Your task to perform on an android device: turn notification dots off Image 0: 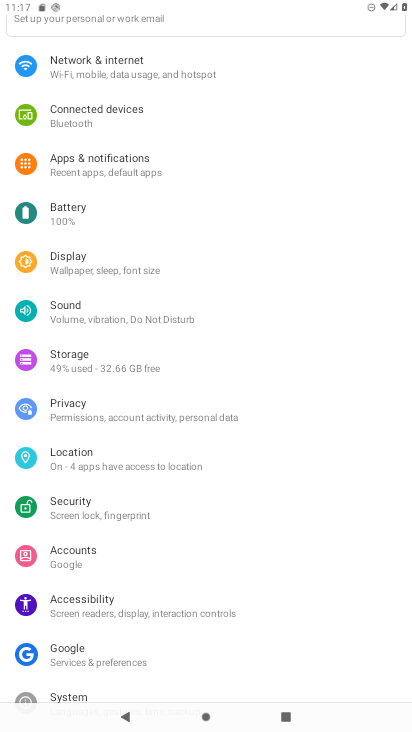
Step 0: click (170, 165)
Your task to perform on an android device: turn notification dots off Image 1: 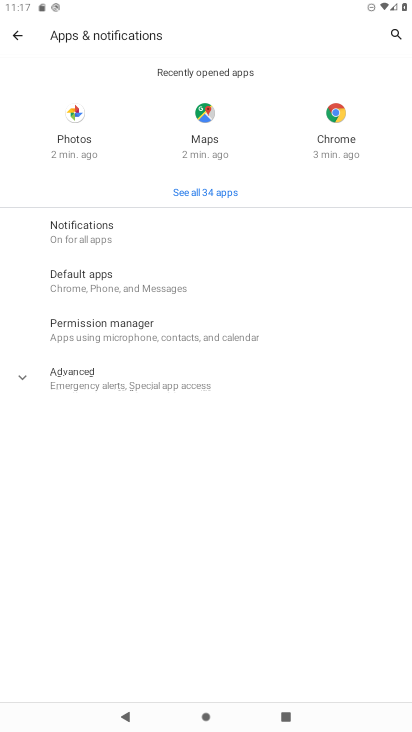
Step 1: click (154, 235)
Your task to perform on an android device: turn notification dots off Image 2: 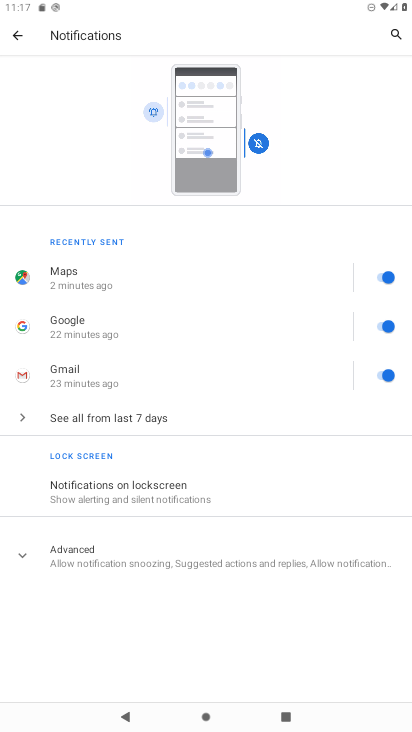
Step 2: click (201, 551)
Your task to perform on an android device: turn notification dots off Image 3: 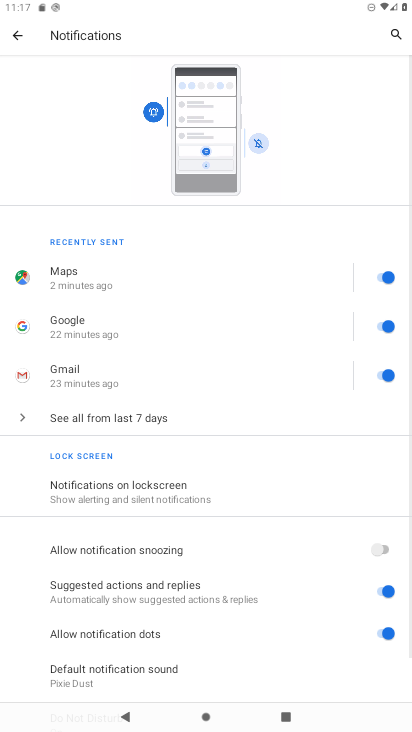
Step 3: click (395, 628)
Your task to perform on an android device: turn notification dots off Image 4: 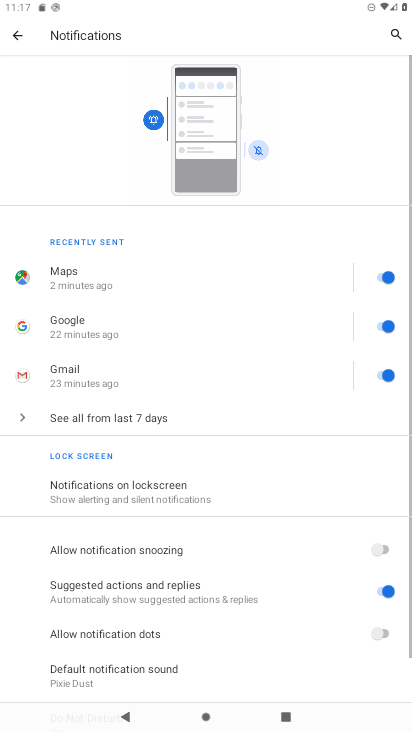
Step 4: task complete